Your task to perform on an android device: Open the Play Movies app and select the watchlist tab. Image 0: 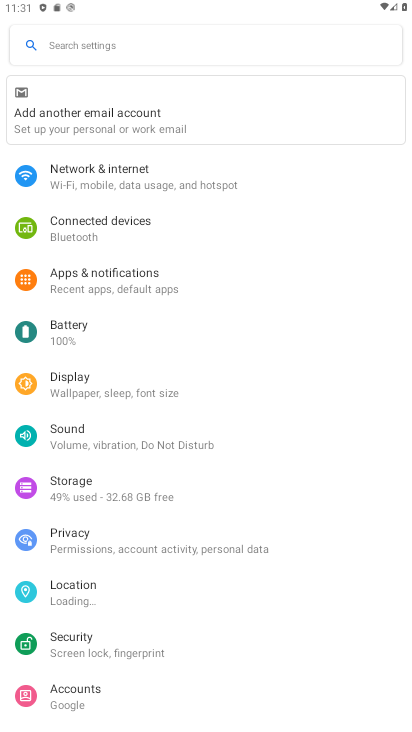
Step 0: press home button
Your task to perform on an android device: Open the Play Movies app and select the watchlist tab. Image 1: 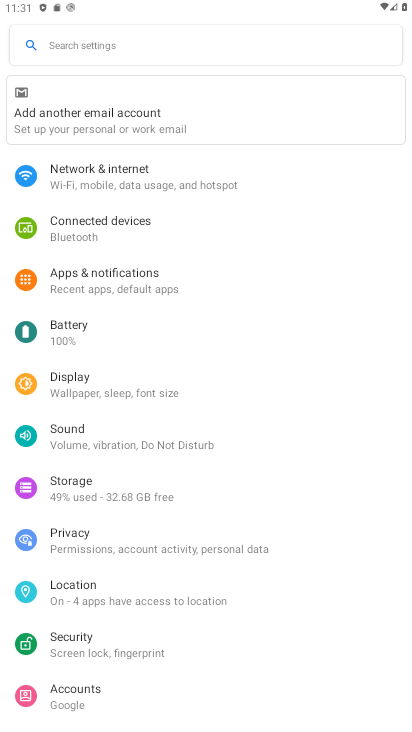
Step 1: press home button
Your task to perform on an android device: Open the Play Movies app and select the watchlist tab. Image 2: 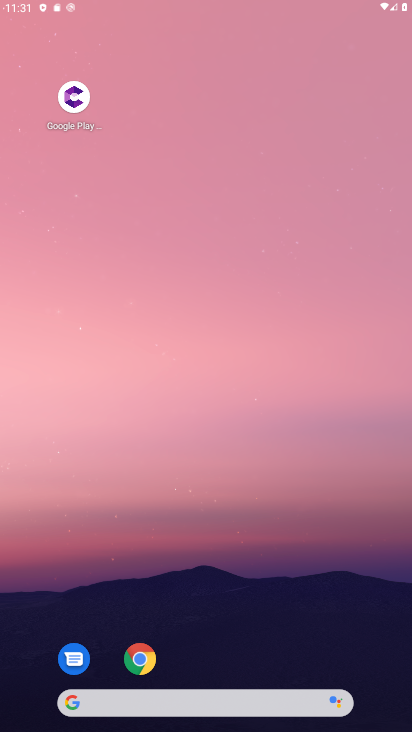
Step 2: press home button
Your task to perform on an android device: Open the Play Movies app and select the watchlist tab. Image 3: 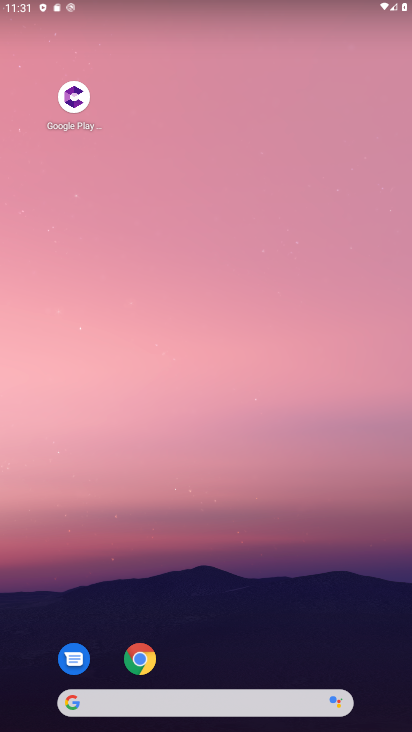
Step 3: click (343, 517)
Your task to perform on an android device: Open the Play Movies app and select the watchlist tab. Image 4: 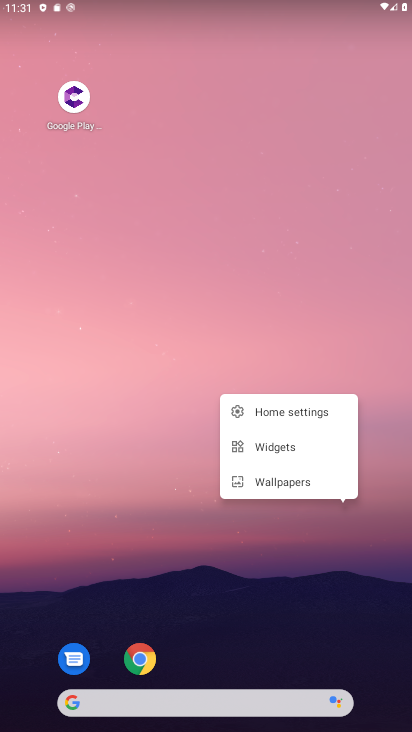
Step 4: click (364, 536)
Your task to perform on an android device: Open the Play Movies app and select the watchlist tab. Image 5: 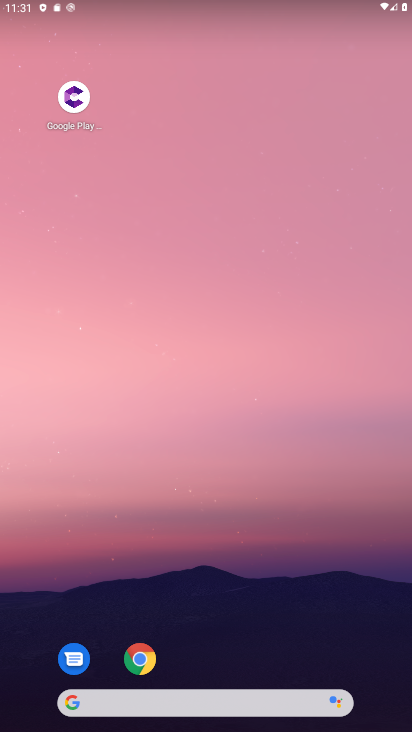
Step 5: drag from (188, 669) to (409, 98)
Your task to perform on an android device: Open the Play Movies app and select the watchlist tab. Image 6: 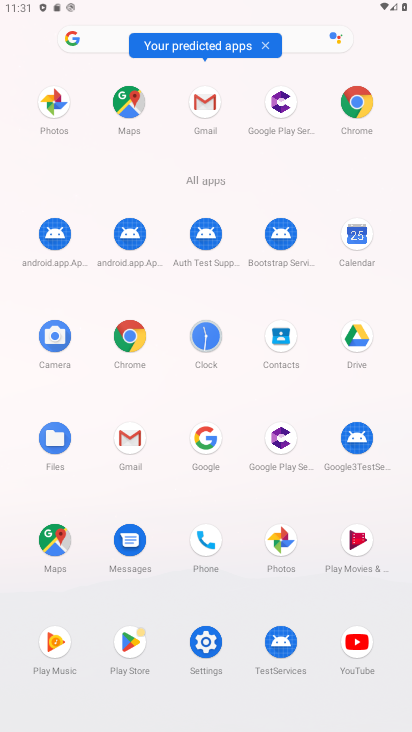
Step 6: click (368, 558)
Your task to perform on an android device: Open the Play Movies app and select the watchlist tab. Image 7: 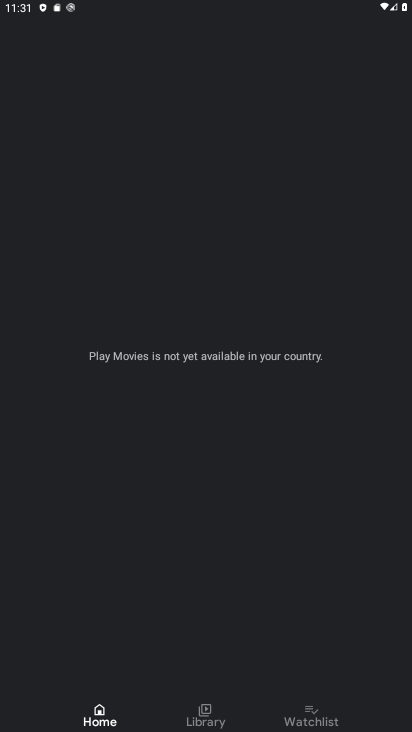
Step 7: click (296, 719)
Your task to perform on an android device: Open the Play Movies app and select the watchlist tab. Image 8: 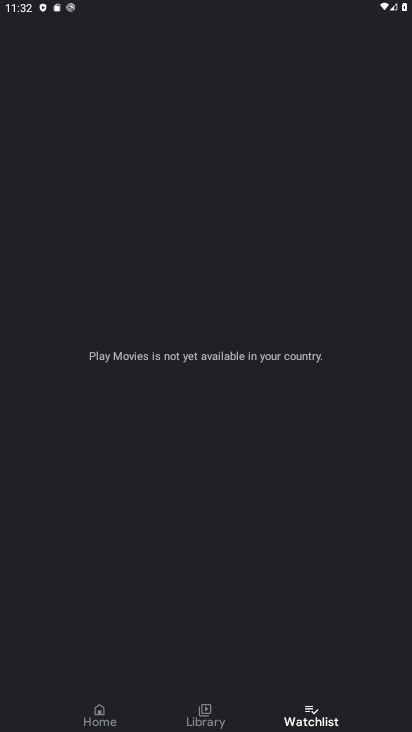
Step 8: task complete